Your task to perform on an android device: toggle data saver in the chrome app Image 0: 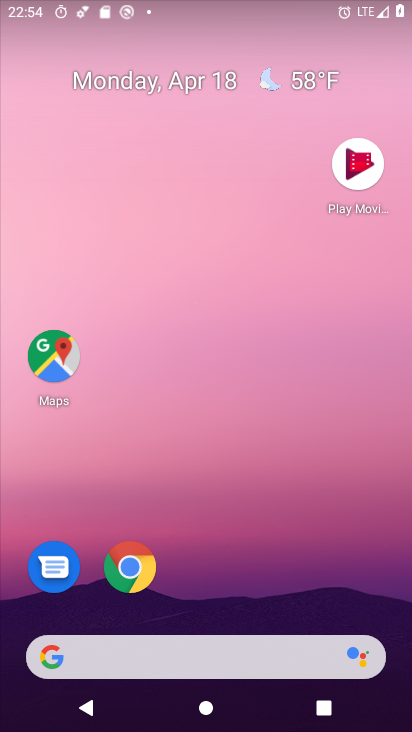
Step 0: click (299, 23)
Your task to perform on an android device: toggle data saver in the chrome app Image 1: 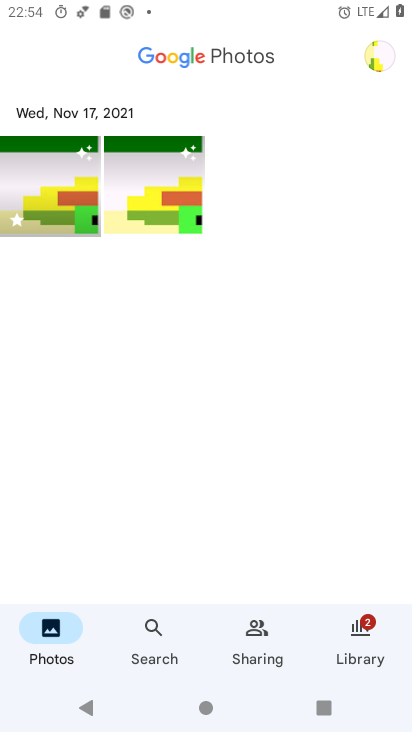
Step 1: drag from (228, 451) to (263, 224)
Your task to perform on an android device: toggle data saver in the chrome app Image 2: 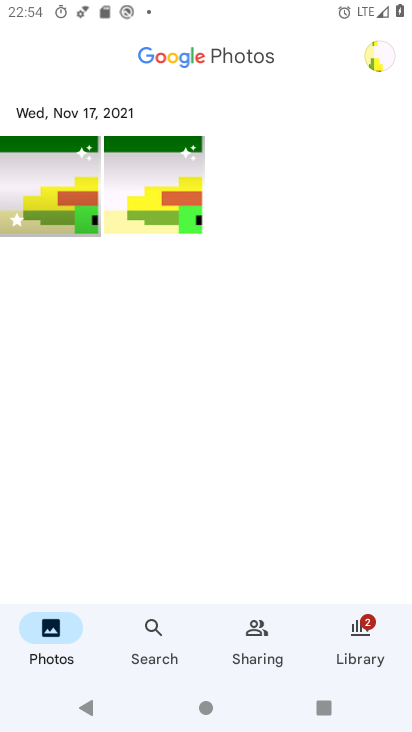
Step 2: drag from (231, 547) to (260, 317)
Your task to perform on an android device: toggle data saver in the chrome app Image 3: 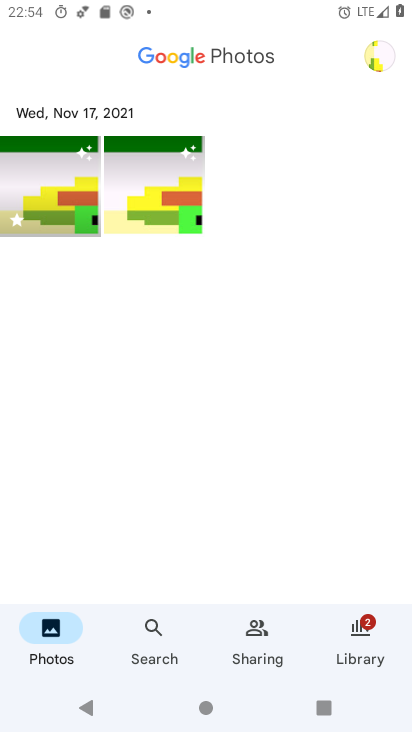
Step 3: drag from (176, 472) to (226, 152)
Your task to perform on an android device: toggle data saver in the chrome app Image 4: 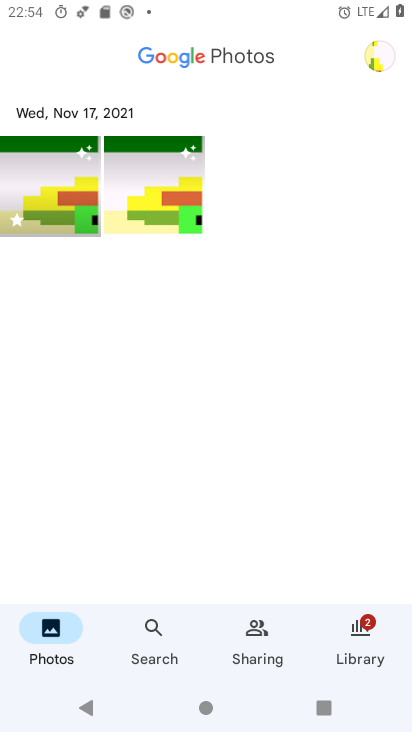
Step 4: drag from (186, 507) to (165, 108)
Your task to perform on an android device: toggle data saver in the chrome app Image 5: 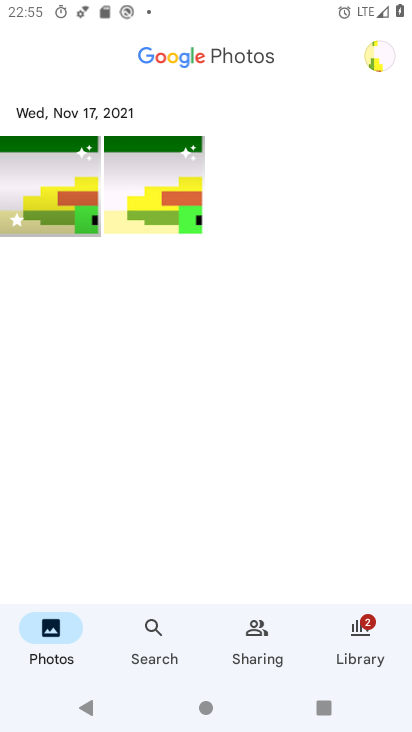
Step 5: drag from (209, 466) to (212, 108)
Your task to perform on an android device: toggle data saver in the chrome app Image 6: 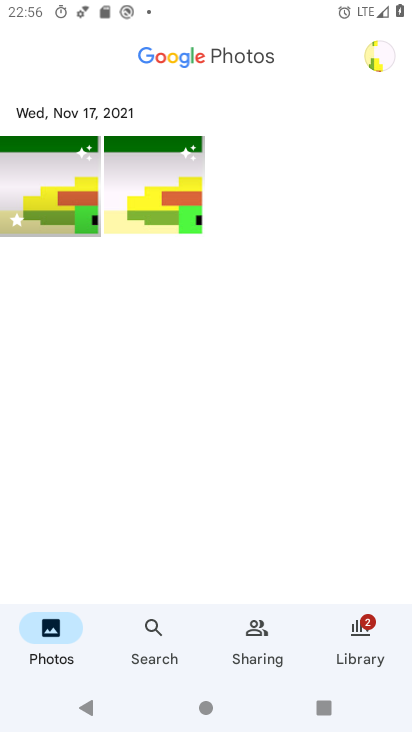
Step 6: drag from (190, 528) to (267, 306)
Your task to perform on an android device: toggle data saver in the chrome app Image 7: 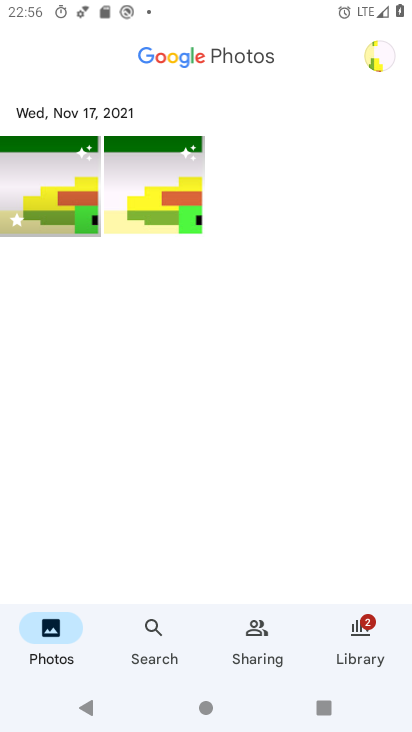
Step 7: press home button
Your task to perform on an android device: toggle data saver in the chrome app Image 8: 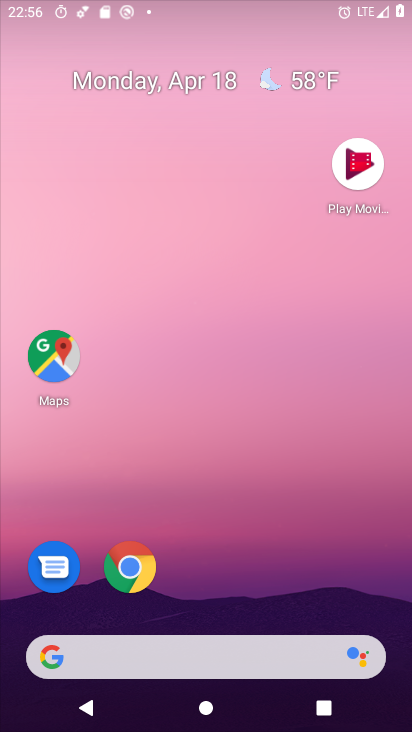
Step 8: drag from (231, 456) to (340, 77)
Your task to perform on an android device: toggle data saver in the chrome app Image 9: 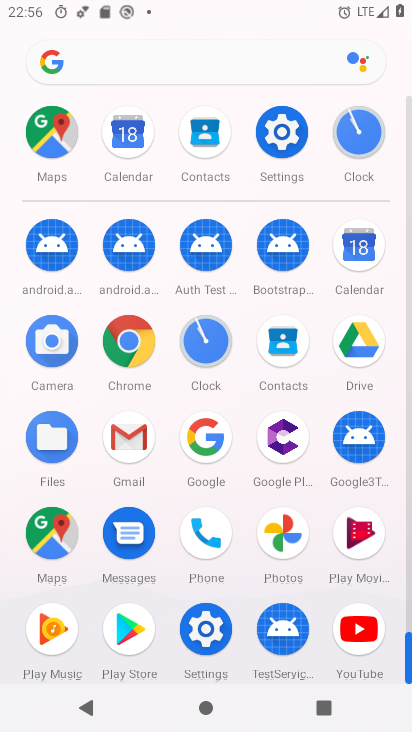
Step 9: click (123, 348)
Your task to perform on an android device: toggle data saver in the chrome app Image 10: 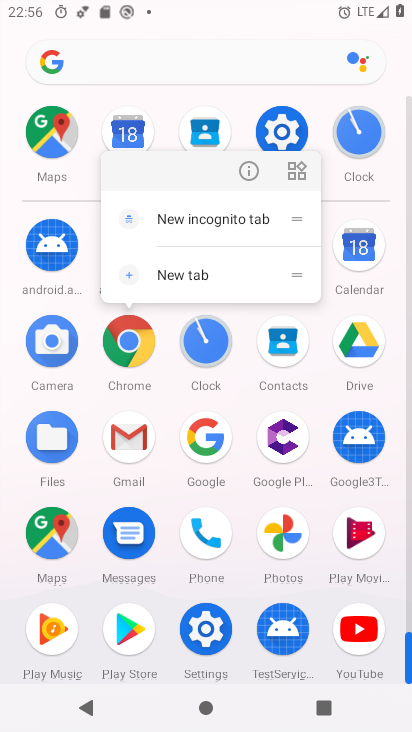
Step 10: click (251, 174)
Your task to perform on an android device: toggle data saver in the chrome app Image 11: 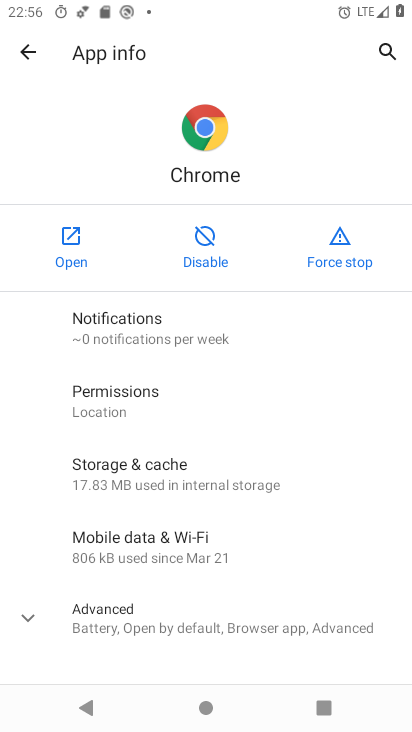
Step 11: click (70, 245)
Your task to perform on an android device: toggle data saver in the chrome app Image 12: 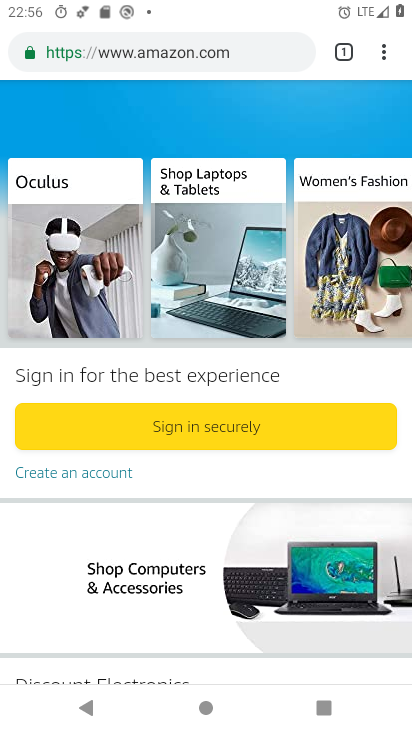
Step 12: drag from (190, 534) to (229, 692)
Your task to perform on an android device: toggle data saver in the chrome app Image 13: 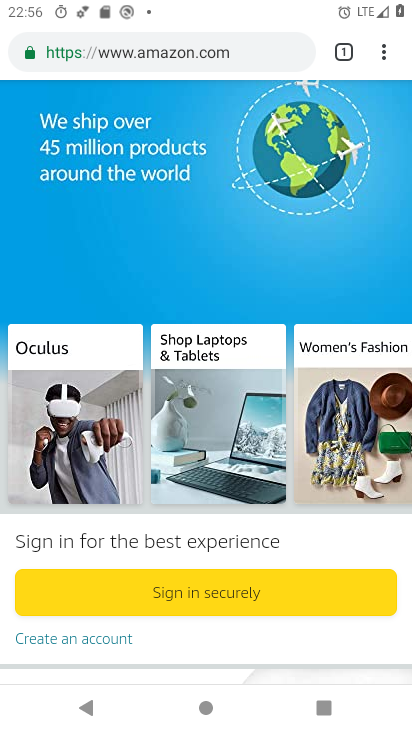
Step 13: click (378, 37)
Your task to perform on an android device: toggle data saver in the chrome app Image 14: 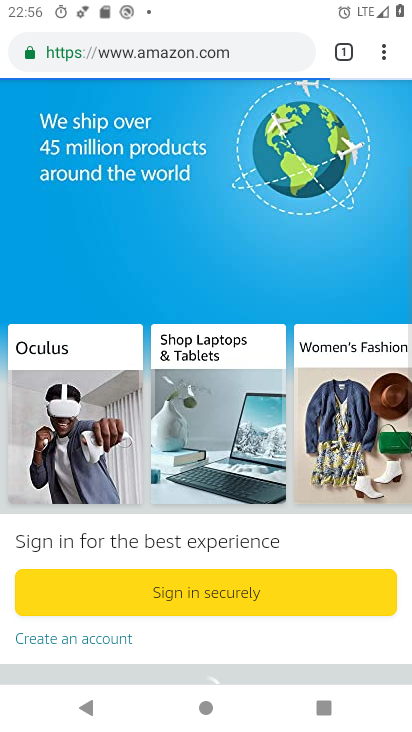
Step 14: drag from (382, 53) to (211, 602)
Your task to perform on an android device: toggle data saver in the chrome app Image 15: 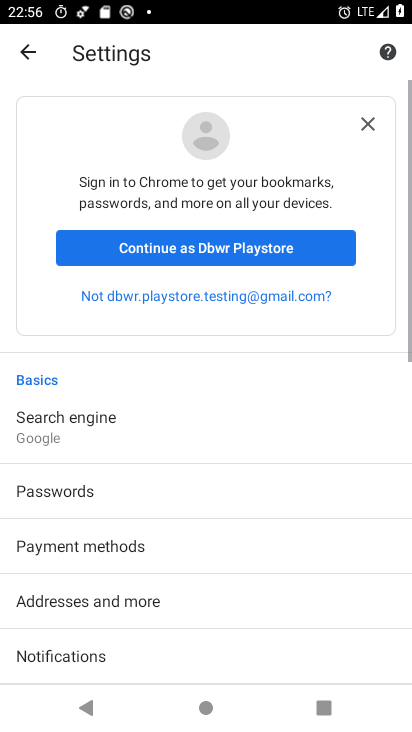
Step 15: drag from (177, 556) to (206, 59)
Your task to perform on an android device: toggle data saver in the chrome app Image 16: 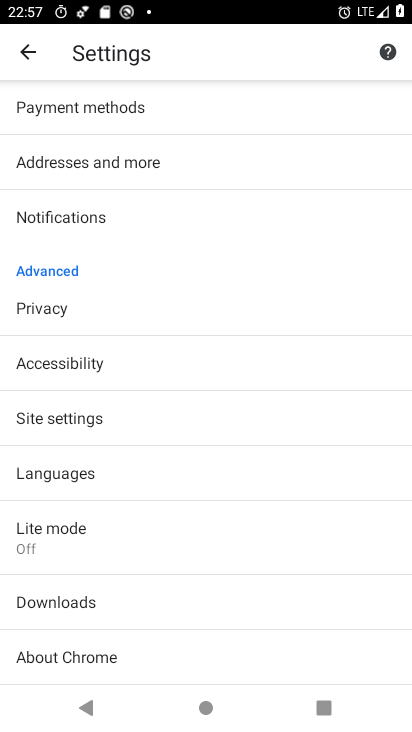
Step 16: drag from (241, 574) to (232, 287)
Your task to perform on an android device: toggle data saver in the chrome app Image 17: 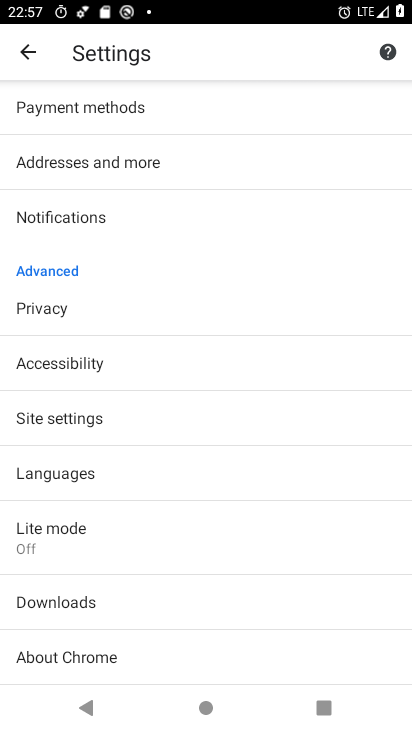
Step 17: drag from (195, 577) to (303, 254)
Your task to perform on an android device: toggle data saver in the chrome app Image 18: 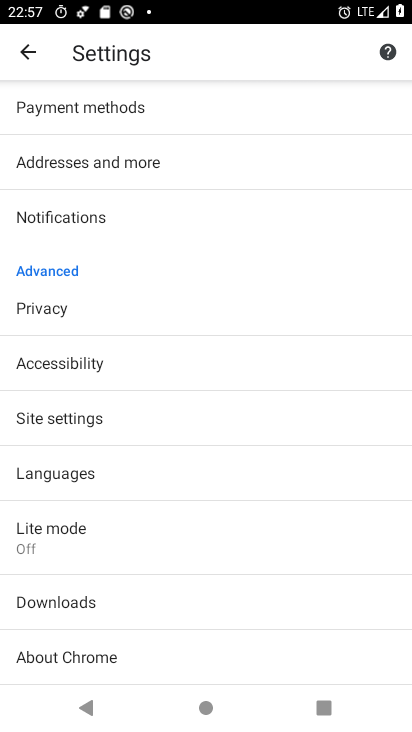
Step 18: click (110, 421)
Your task to perform on an android device: toggle data saver in the chrome app Image 19: 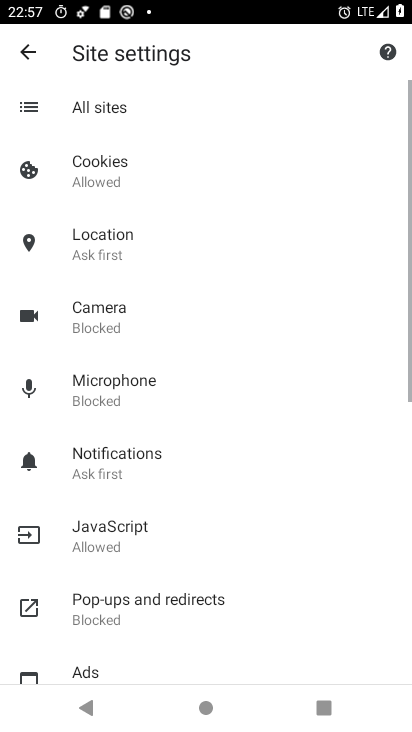
Step 19: drag from (302, 113) to (310, 77)
Your task to perform on an android device: toggle data saver in the chrome app Image 20: 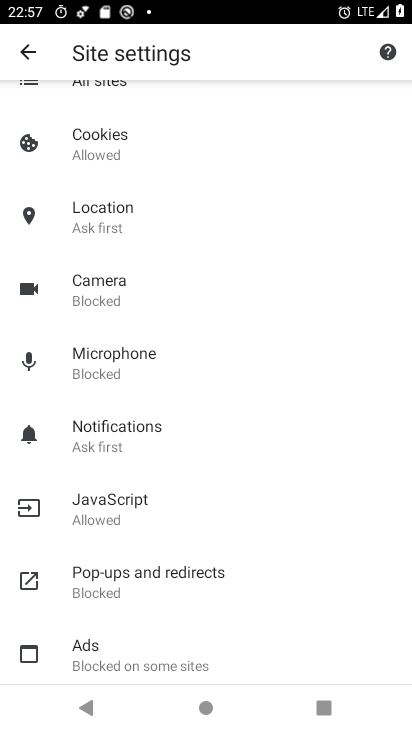
Step 20: drag from (146, 611) to (264, 21)
Your task to perform on an android device: toggle data saver in the chrome app Image 21: 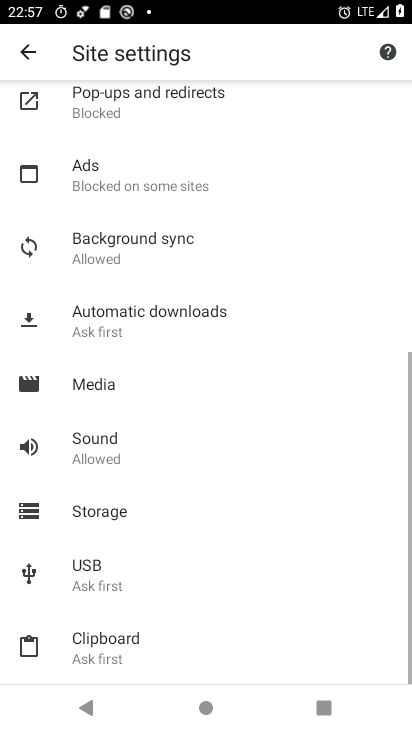
Step 21: click (23, 52)
Your task to perform on an android device: toggle data saver in the chrome app Image 22: 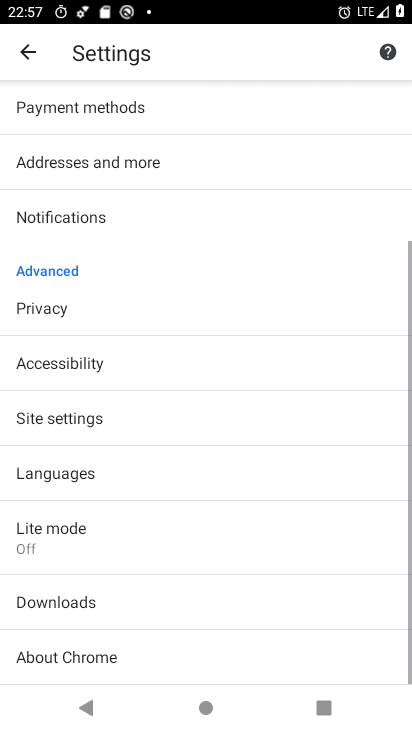
Step 22: click (138, 540)
Your task to perform on an android device: toggle data saver in the chrome app Image 23: 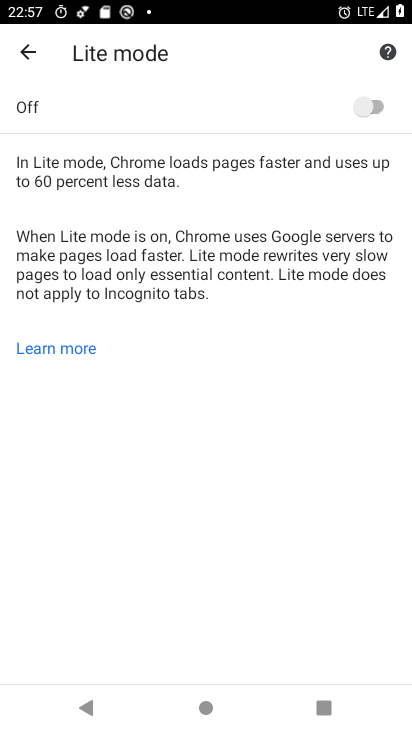
Step 23: click (360, 97)
Your task to perform on an android device: toggle data saver in the chrome app Image 24: 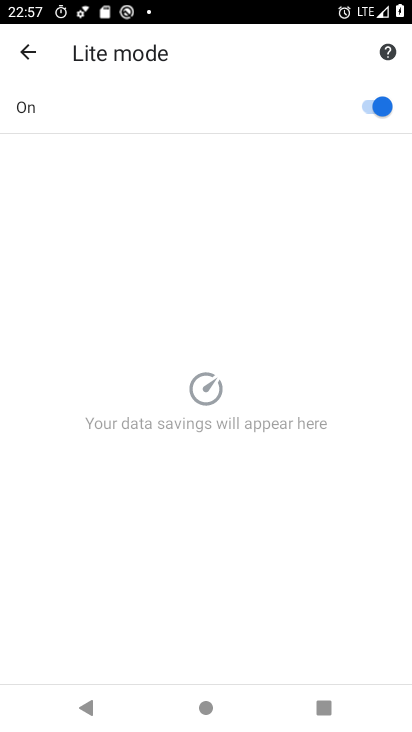
Step 24: task complete